Your task to perform on an android device: open a bookmark in the chrome app Image 0: 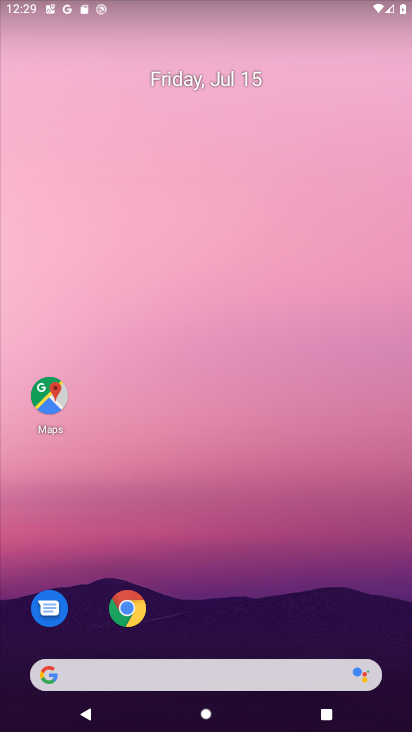
Step 0: click (131, 610)
Your task to perform on an android device: open a bookmark in the chrome app Image 1: 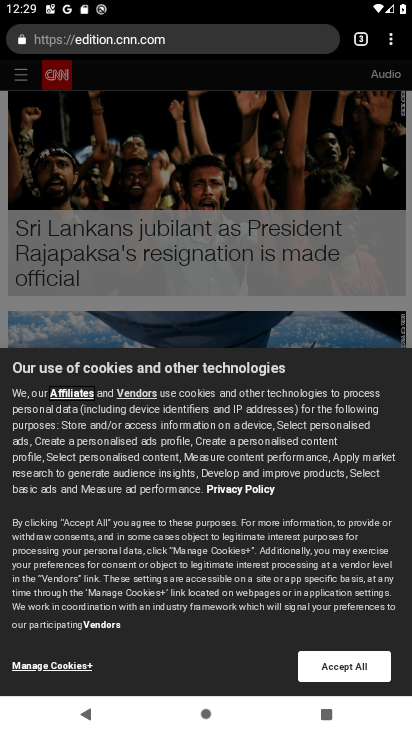
Step 1: click (393, 37)
Your task to perform on an android device: open a bookmark in the chrome app Image 2: 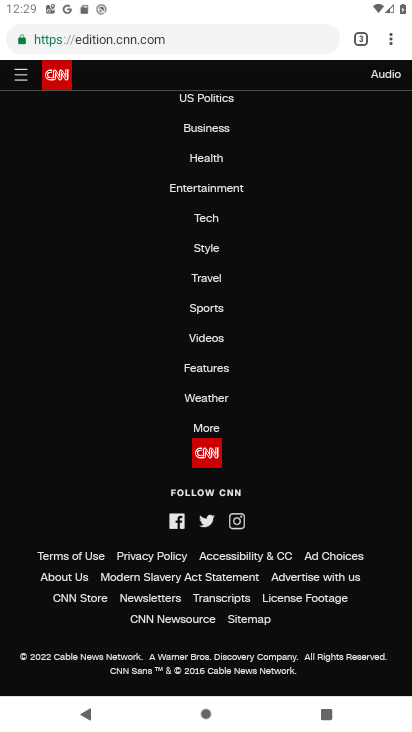
Step 2: click (393, 40)
Your task to perform on an android device: open a bookmark in the chrome app Image 3: 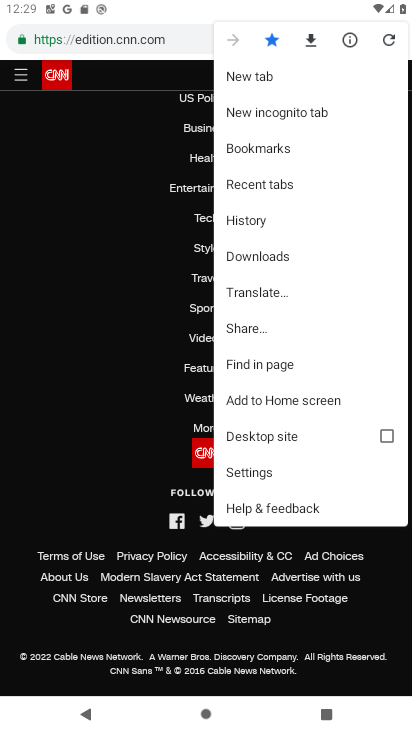
Step 3: click (266, 143)
Your task to perform on an android device: open a bookmark in the chrome app Image 4: 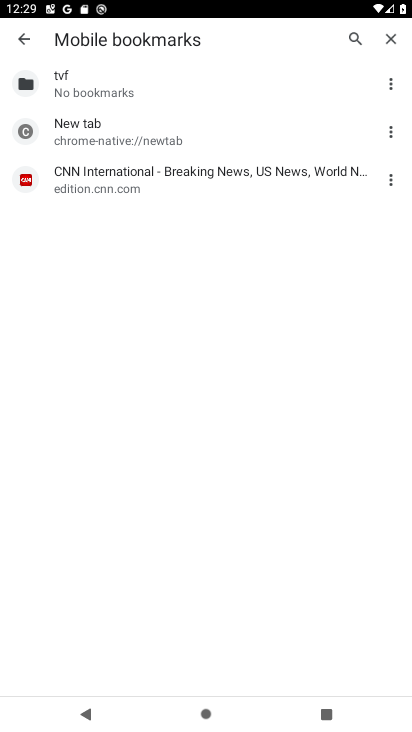
Step 4: task complete